Your task to perform on an android device: What's on my calendar today? Image 0: 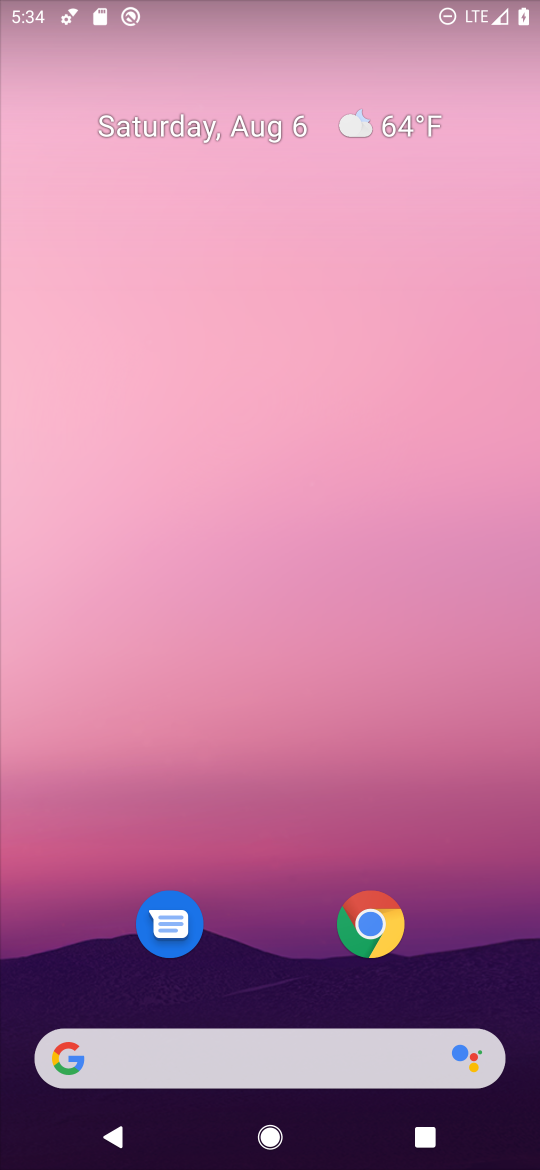
Step 0: drag from (234, 645) to (238, 221)
Your task to perform on an android device: What's on my calendar today? Image 1: 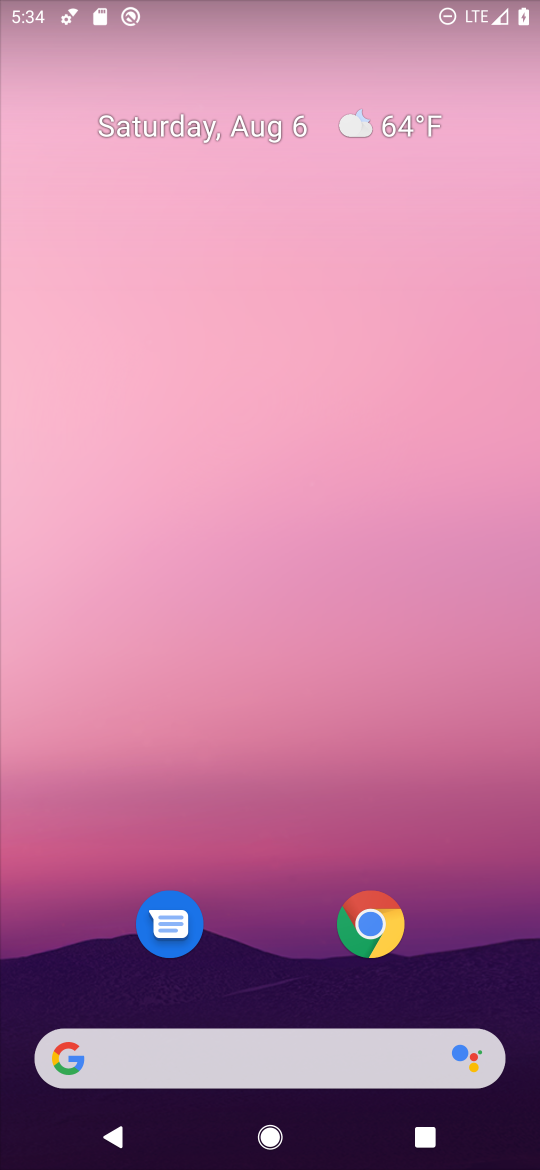
Step 1: drag from (291, 865) to (245, 50)
Your task to perform on an android device: What's on my calendar today? Image 2: 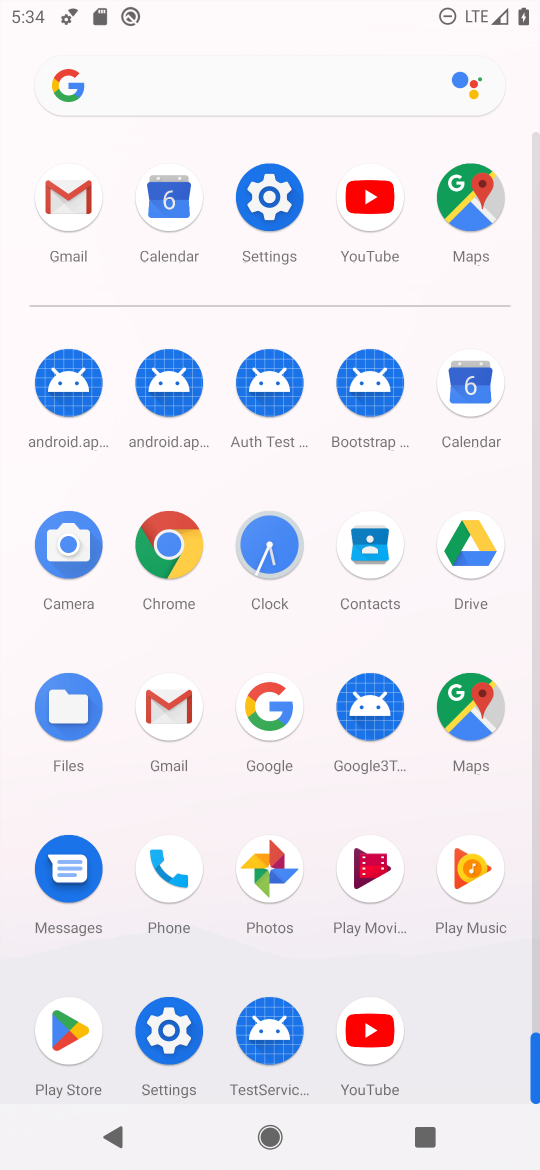
Step 2: click (469, 386)
Your task to perform on an android device: What's on my calendar today? Image 3: 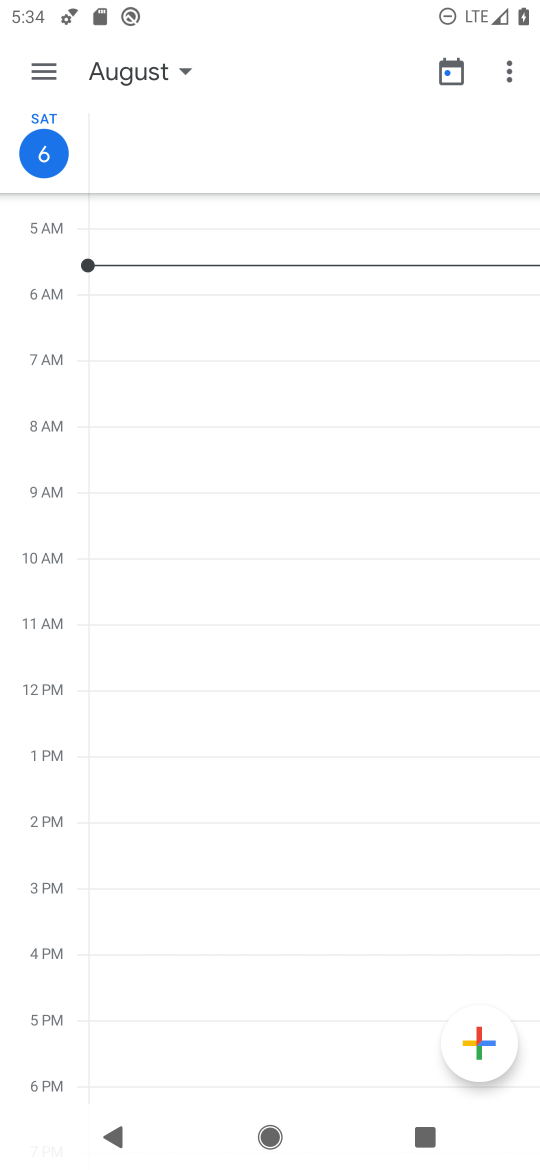
Step 3: task complete